Your task to perform on an android device: Open Google Chrome and click the shortcut for Amazon.com Image 0: 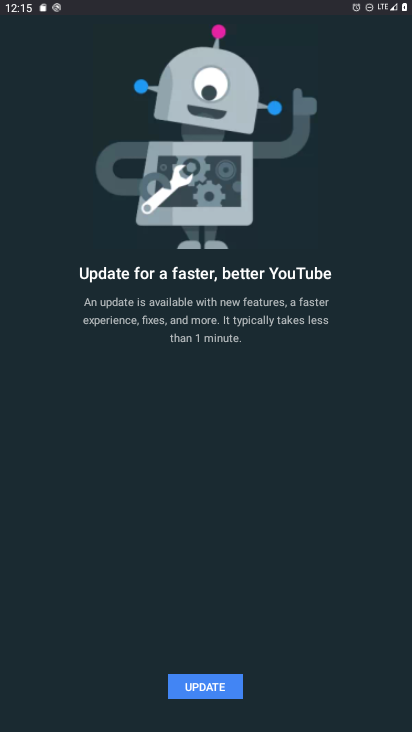
Step 0: press home button
Your task to perform on an android device: Open Google Chrome and click the shortcut for Amazon.com Image 1: 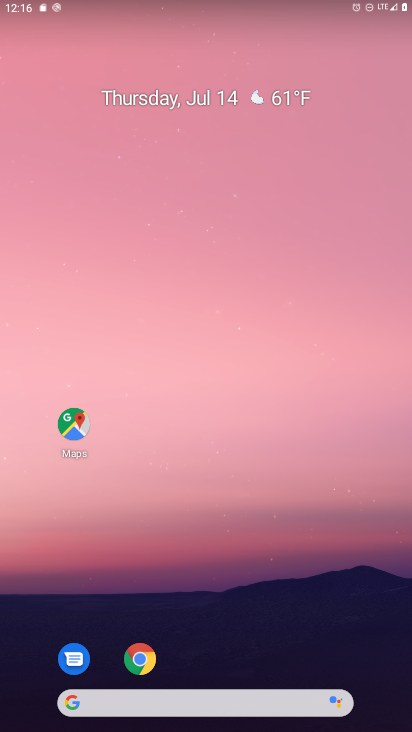
Step 1: click (137, 653)
Your task to perform on an android device: Open Google Chrome and click the shortcut for Amazon.com Image 2: 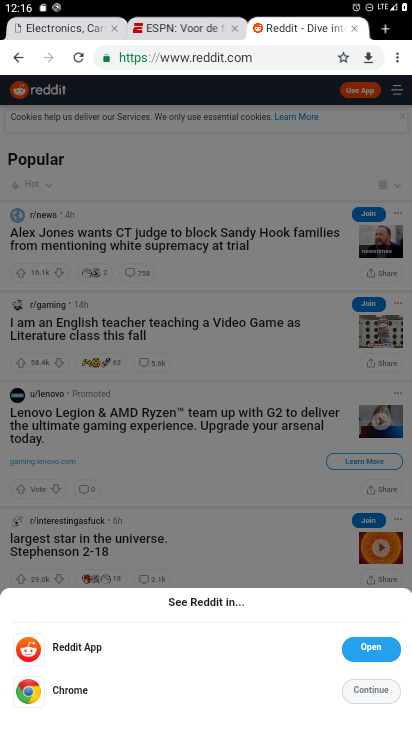
Step 2: click (385, 32)
Your task to perform on an android device: Open Google Chrome and click the shortcut for Amazon.com Image 3: 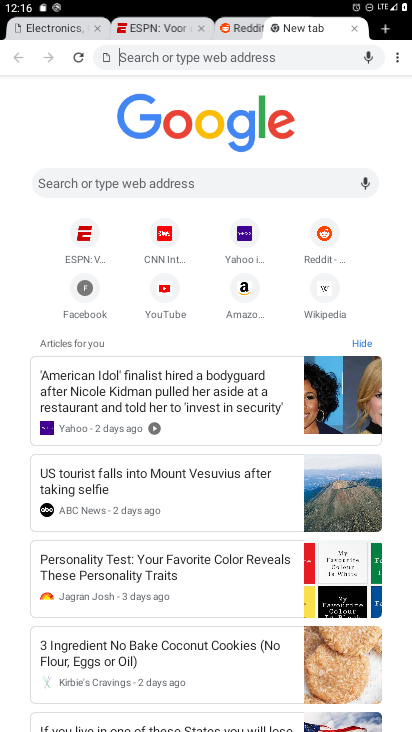
Step 3: click (241, 287)
Your task to perform on an android device: Open Google Chrome and click the shortcut for Amazon.com Image 4: 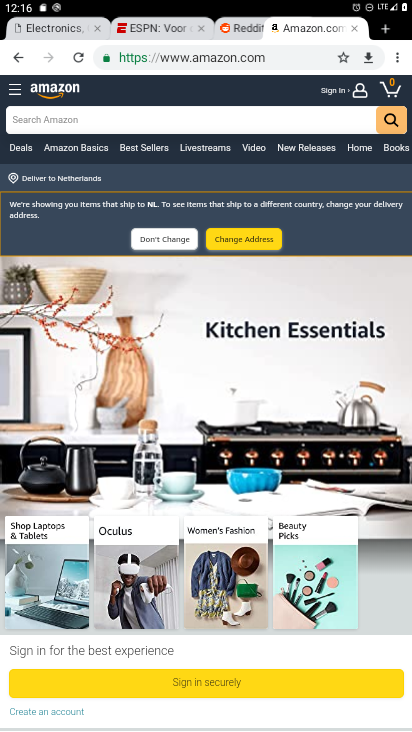
Step 4: task complete